Your task to perform on an android device: Open privacy settings Image 0: 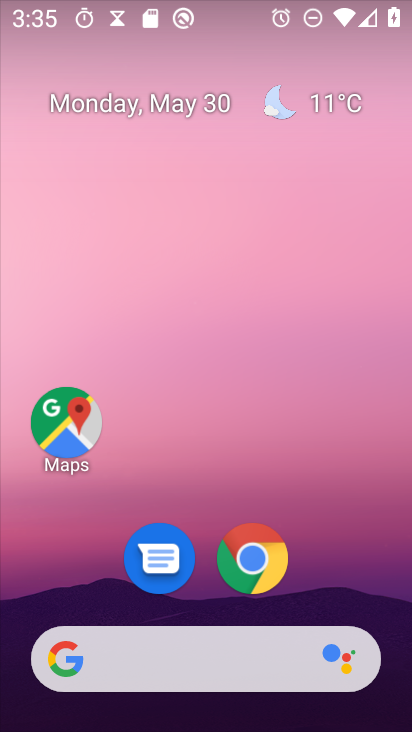
Step 0: drag from (251, 577) to (262, 85)
Your task to perform on an android device: Open privacy settings Image 1: 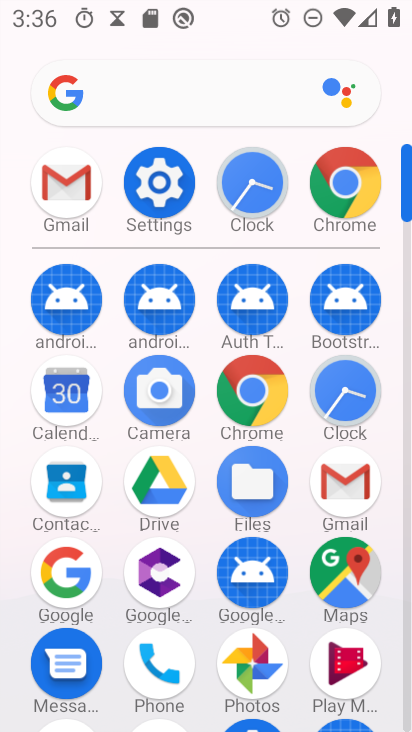
Step 1: click (166, 165)
Your task to perform on an android device: Open privacy settings Image 2: 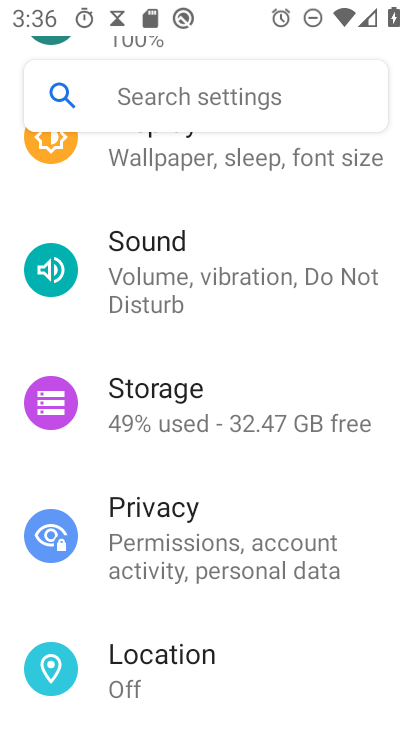
Step 2: click (151, 555)
Your task to perform on an android device: Open privacy settings Image 3: 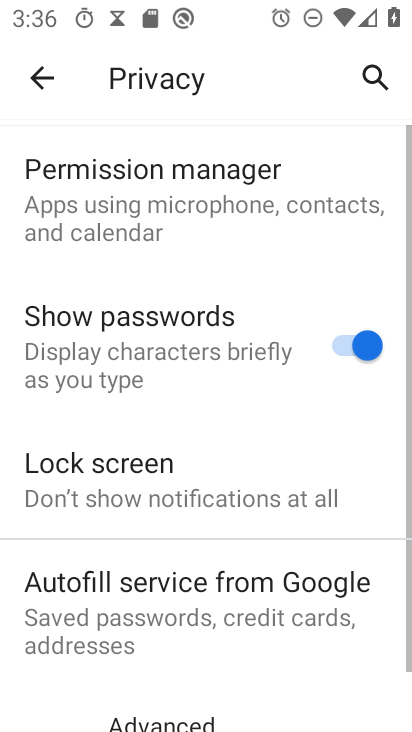
Step 3: task complete